Your task to perform on an android device: open app "Pandora - Music & Podcasts" (install if not already installed) Image 0: 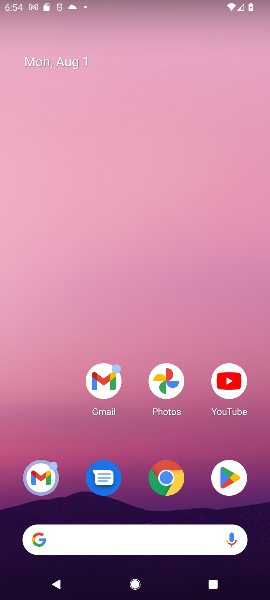
Step 0: click (231, 472)
Your task to perform on an android device: open app "Pandora - Music & Podcasts" (install if not already installed) Image 1: 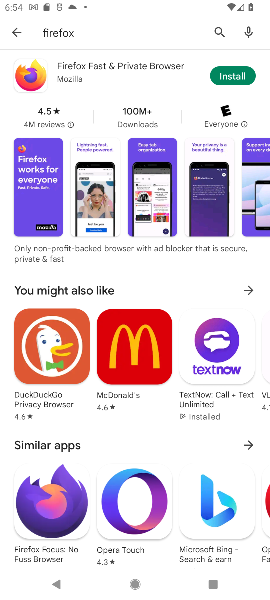
Step 1: click (224, 22)
Your task to perform on an android device: open app "Pandora - Music & Podcasts" (install if not already installed) Image 2: 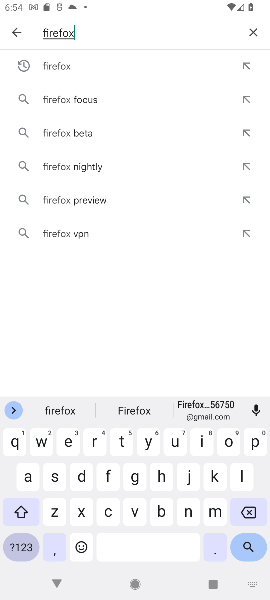
Step 2: click (251, 35)
Your task to perform on an android device: open app "Pandora - Music & Podcasts" (install if not already installed) Image 3: 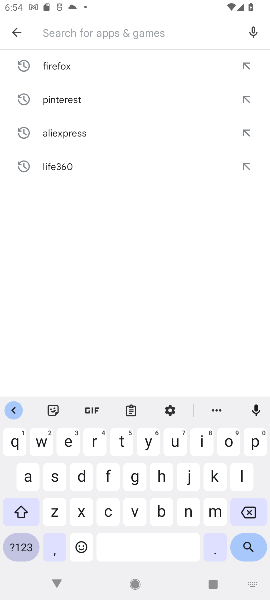
Step 3: click (253, 439)
Your task to perform on an android device: open app "Pandora - Music & Podcasts" (install if not already installed) Image 4: 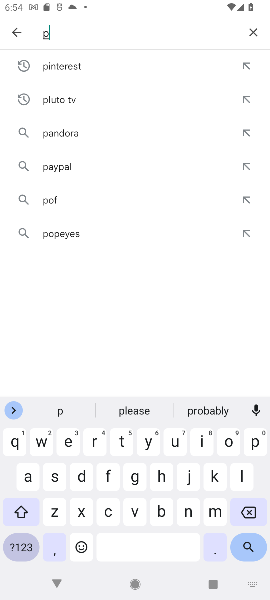
Step 4: click (21, 473)
Your task to perform on an android device: open app "Pandora - Music & Podcasts" (install if not already installed) Image 5: 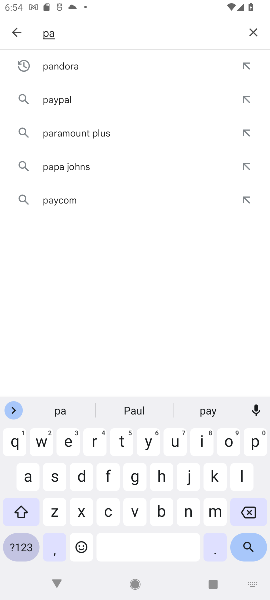
Step 5: click (189, 508)
Your task to perform on an android device: open app "Pandora - Music & Podcasts" (install if not already installed) Image 6: 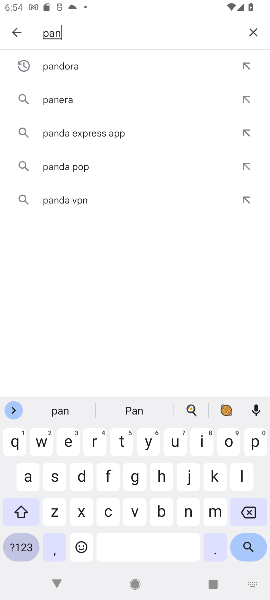
Step 6: click (81, 63)
Your task to perform on an android device: open app "Pandora - Music & Podcasts" (install if not already installed) Image 7: 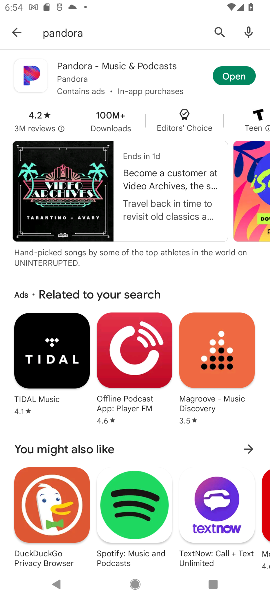
Step 7: click (232, 77)
Your task to perform on an android device: open app "Pandora - Music & Podcasts" (install if not already installed) Image 8: 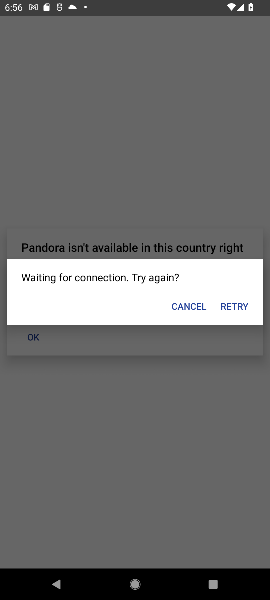
Step 8: task complete